Your task to perform on an android device: Open Google Chrome and click the shortcut for Amazon.com Image 0: 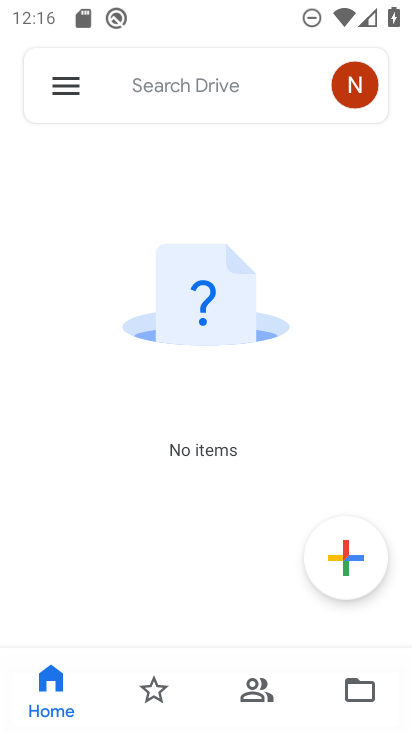
Step 0: press home button
Your task to perform on an android device: Open Google Chrome and click the shortcut for Amazon.com Image 1: 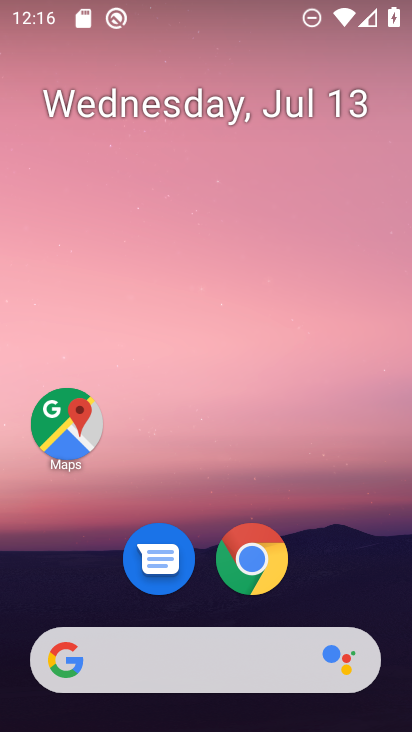
Step 1: drag from (174, 634) to (226, 170)
Your task to perform on an android device: Open Google Chrome and click the shortcut for Amazon.com Image 2: 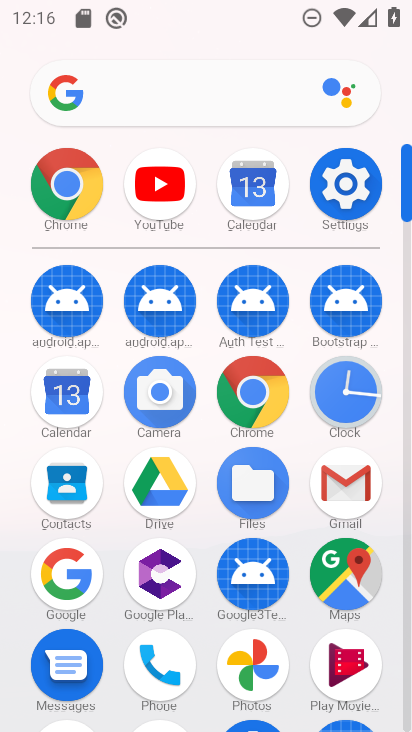
Step 2: click (275, 402)
Your task to perform on an android device: Open Google Chrome and click the shortcut for Amazon.com Image 3: 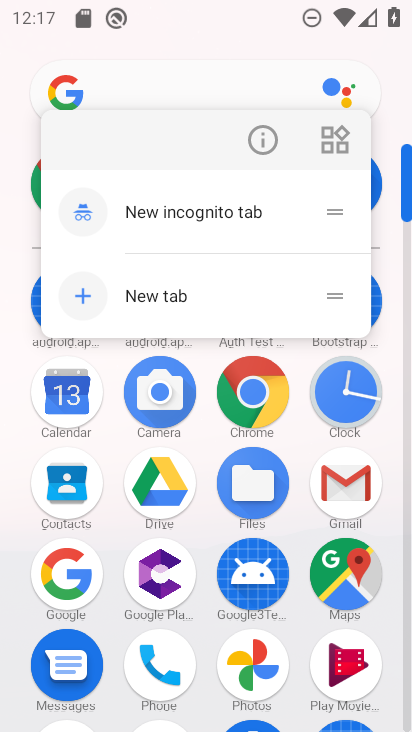
Step 3: click (270, 421)
Your task to perform on an android device: Open Google Chrome and click the shortcut for Amazon.com Image 4: 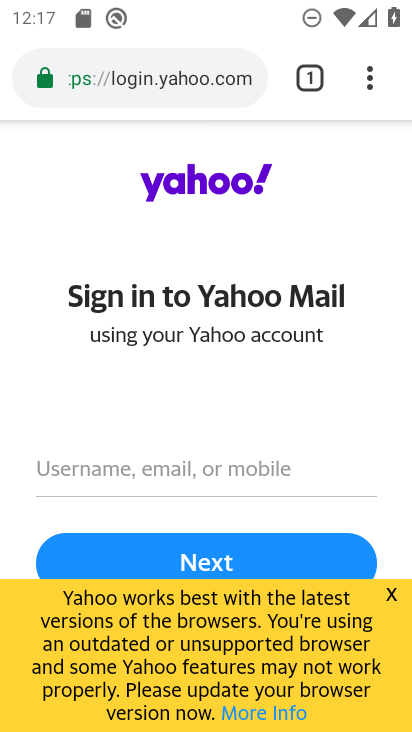
Step 4: drag from (296, 76) to (261, 321)
Your task to perform on an android device: Open Google Chrome and click the shortcut for Amazon.com Image 5: 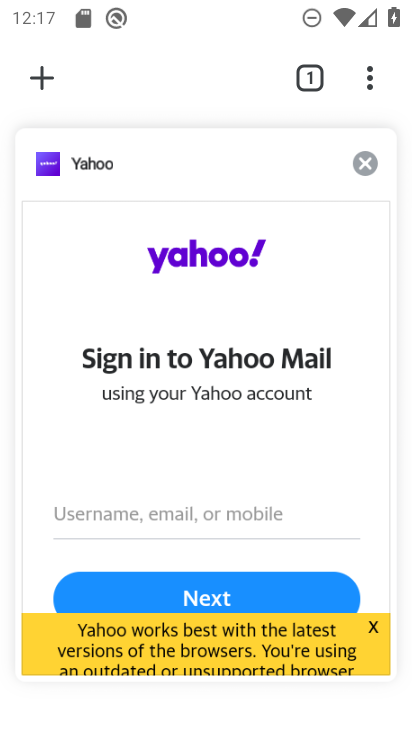
Step 5: click (53, 86)
Your task to perform on an android device: Open Google Chrome and click the shortcut for Amazon.com Image 6: 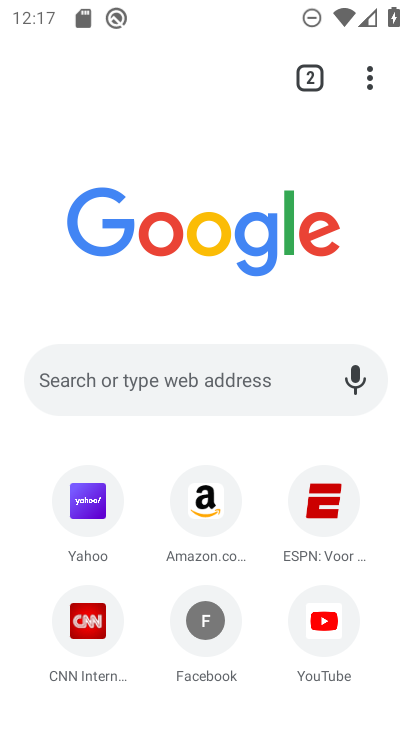
Step 6: click (221, 526)
Your task to perform on an android device: Open Google Chrome and click the shortcut for Amazon.com Image 7: 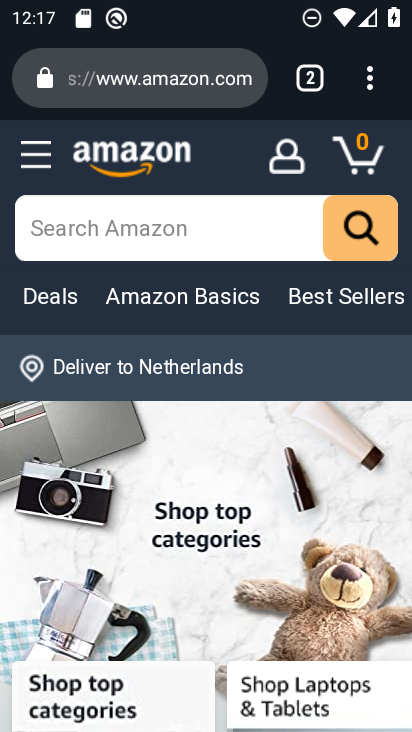
Step 7: task complete